Your task to perform on an android device: add a label to a message in the gmail app Image 0: 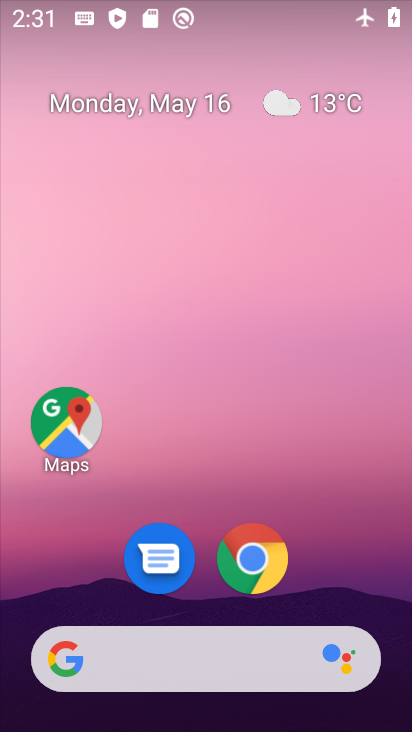
Step 0: drag from (174, 612) to (138, 36)
Your task to perform on an android device: add a label to a message in the gmail app Image 1: 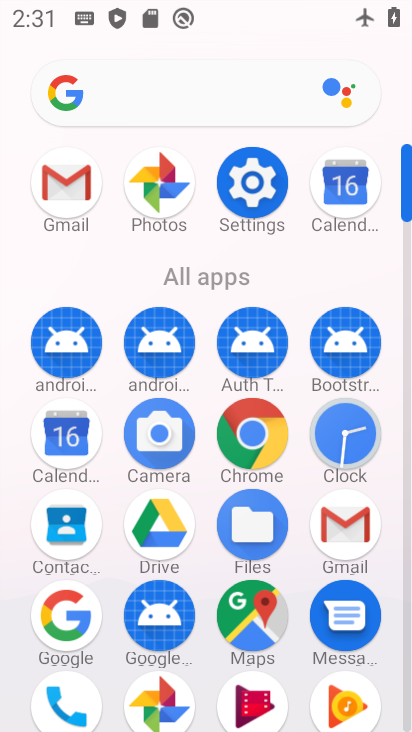
Step 1: click (335, 519)
Your task to perform on an android device: add a label to a message in the gmail app Image 2: 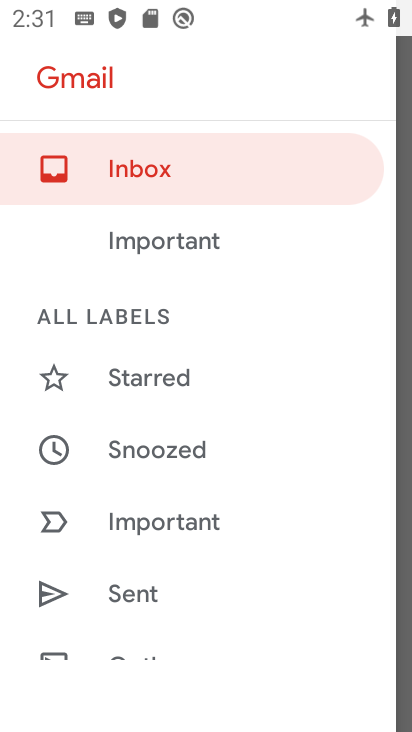
Step 2: click (155, 364)
Your task to perform on an android device: add a label to a message in the gmail app Image 3: 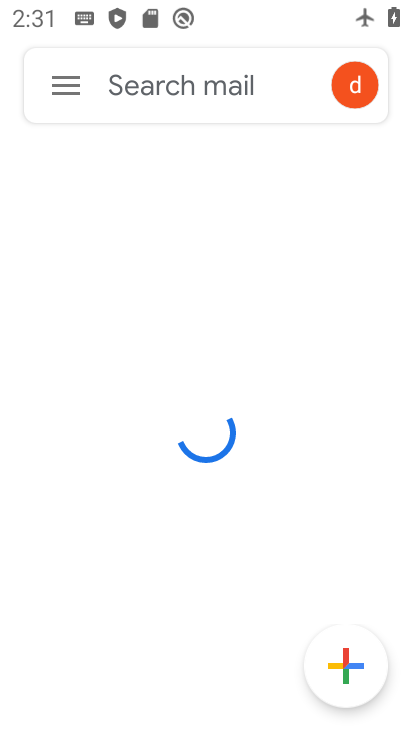
Step 3: task complete